Your task to perform on an android device: toggle wifi Image 0: 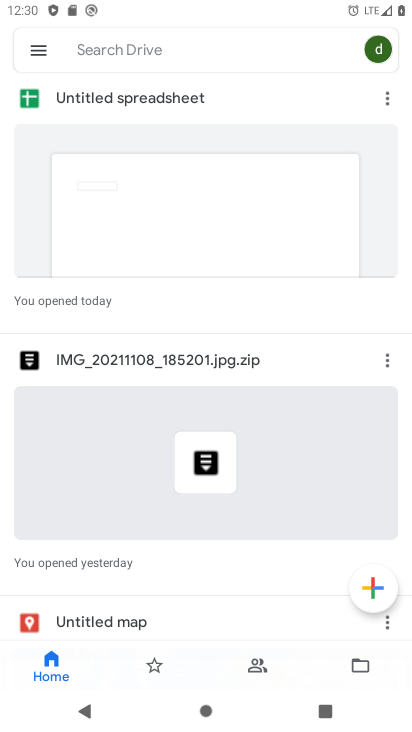
Step 0: press home button
Your task to perform on an android device: toggle wifi Image 1: 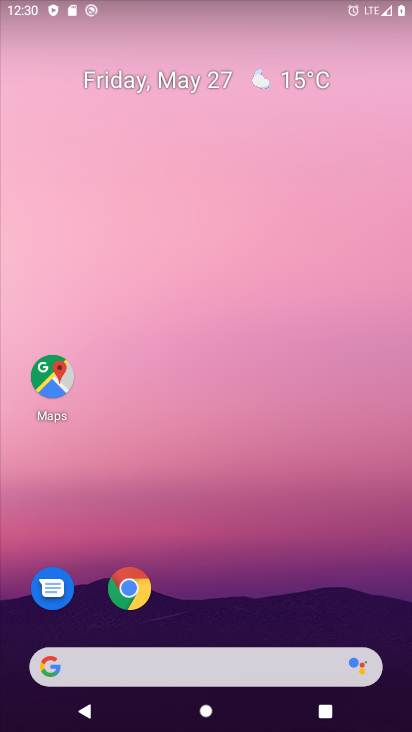
Step 1: drag from (257, 601) to (287, 218)
Your task to perform on an android device: toggle wifi Image 2: 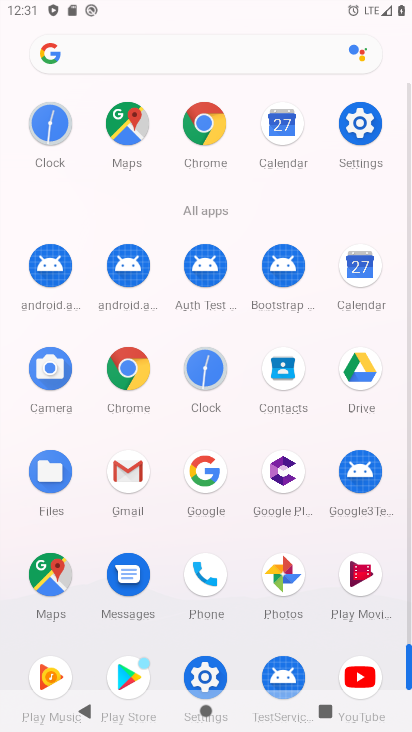
Step 2: click (204, 677)
Your task to perform on an android device: toggle wifi Image 3: 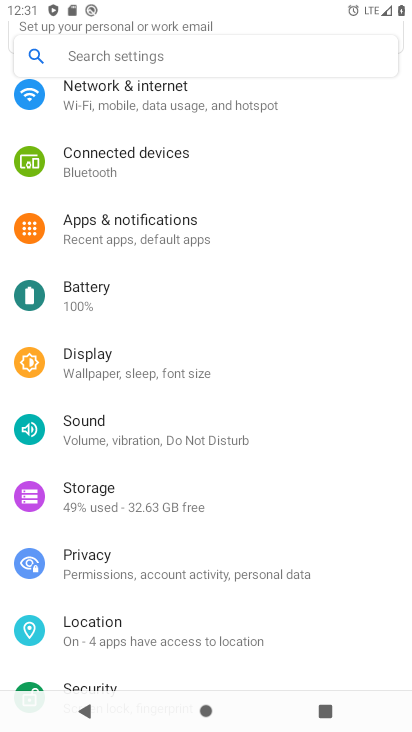
Step 3: drag from (246, 127) to (236, 351)
Your task to perform on an android device: toggle wifi Image 4: 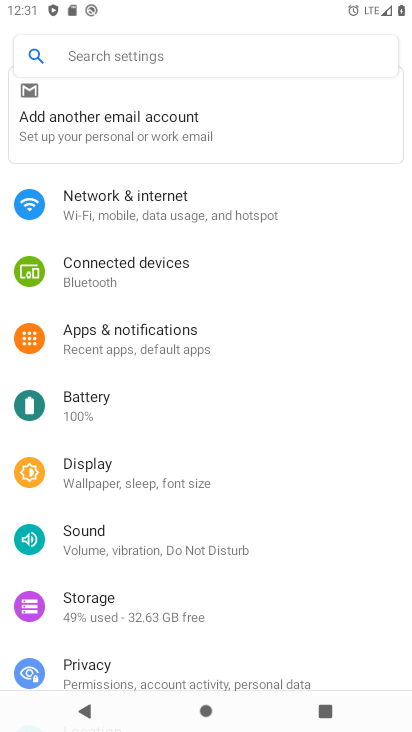
Step 4: click (110, 188)
Your task to perform on an android device: toggle wifi Image 5: 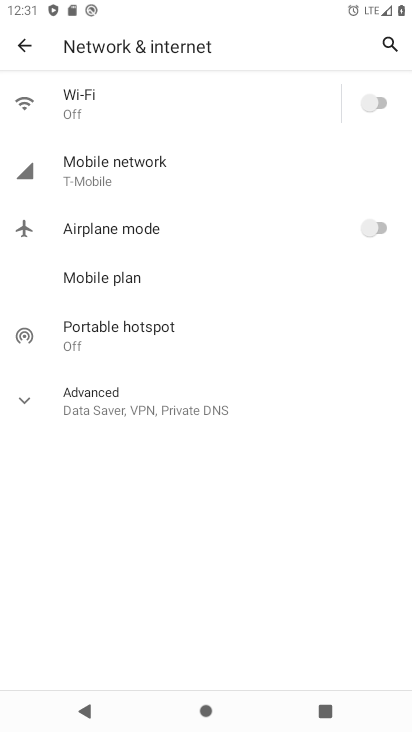
Step 5: click (383, 101)
Your task to perform on an android device: toggle wifi Image 6: 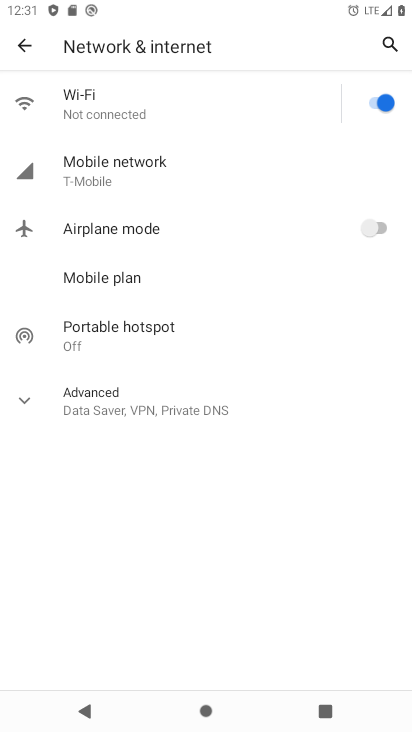
Step 6: task complete